Your task to perform on an android device: install app "LiveIn - Share Your Moment" Image 0: 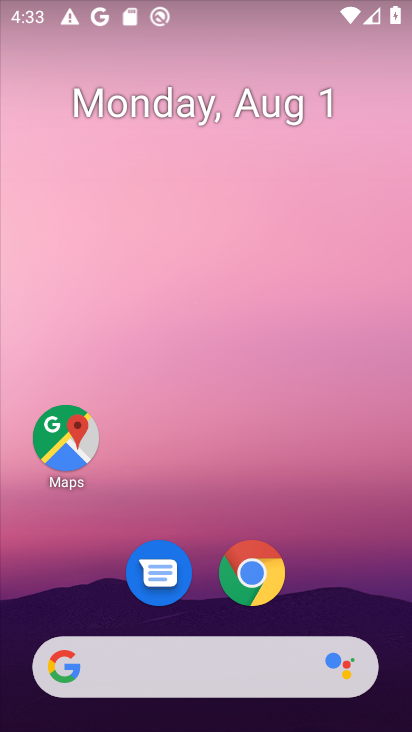
Step 0: drag from (242, 673) to (236, 89)
Your task to perform on an android device: install app "LiveIn - Share Your Moment" Image 1: 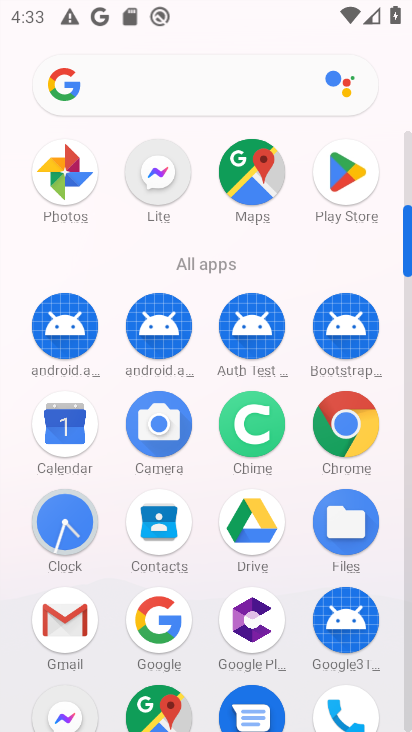
Step 1: click (358, 194)
Your task to perform on an android device: install app "LiveIn - Share Your Moment" Image 2: 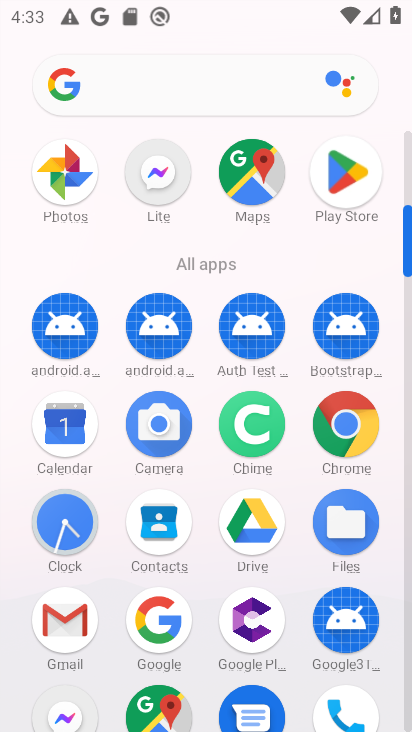
Step 2: click (364, 190)
Your task to perform on an android device: install app "LiveIn - Share Your Moment" Image 3: 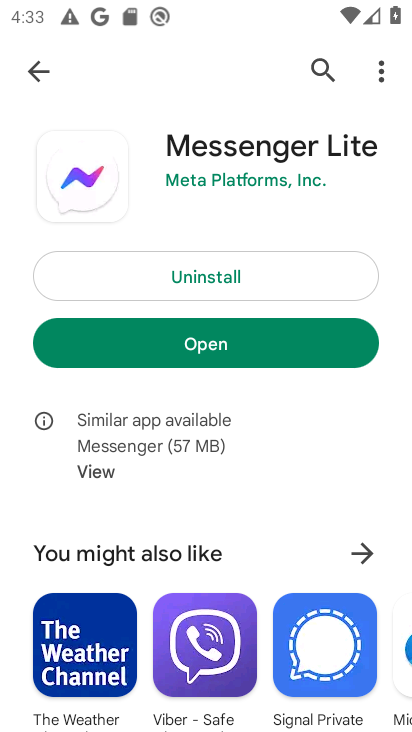
Step 3: click (30, 81)
Your task to perform on an android device: install app "LiveIn - Share Your Moment" Image 4: 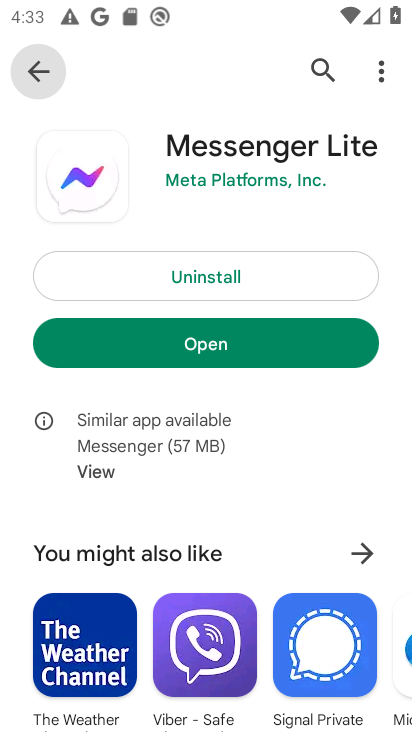
Step 4: click (30, 81)
Your task to perform on an android device: install app "LiveIn - Share Your Moment" Image 5: 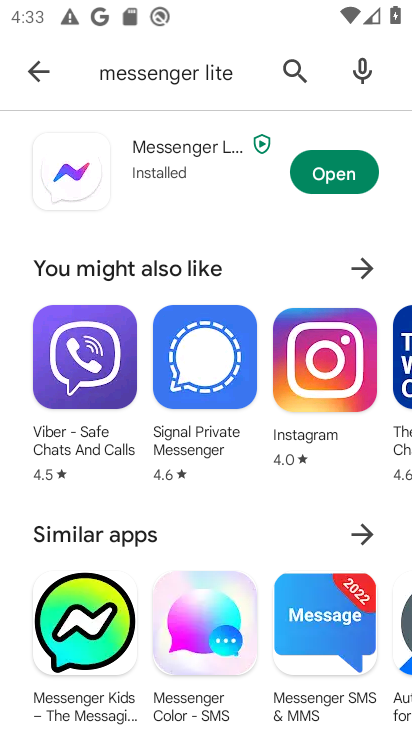
Step 5: click (30, 81)
Your task to perform on an android device: install app "LiveIn - Share Your Moment" Image 6: 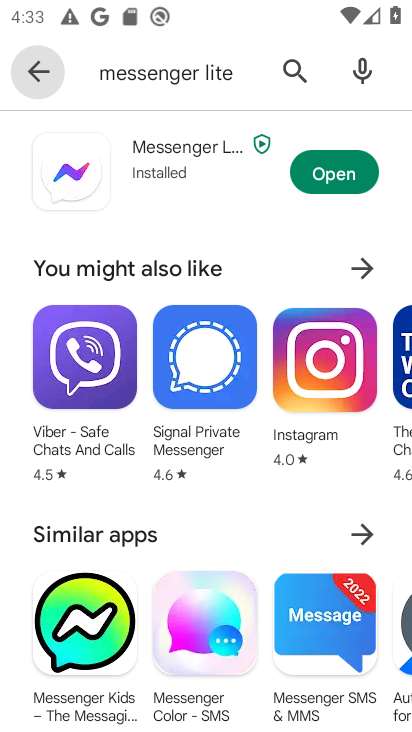
Step 6: click (31, 82)
Your task to perform on an android device: install app "LiveIn - Share Your Moment" Image 7: 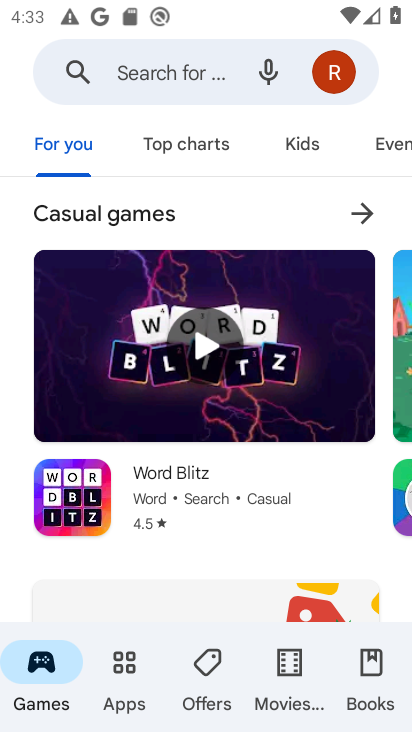
Step 7: click (138, 70)
Your task to perform on an android device: install app "LiveIn - Share Your Moment" Image 8: 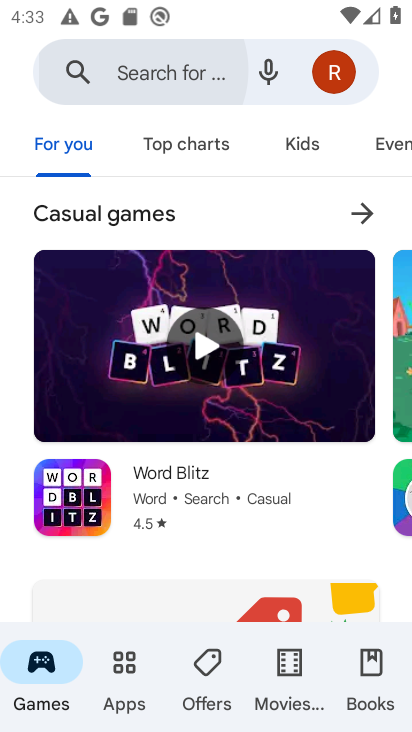
Step 8: click (136, 71)
Your task to perform on an android device: install app "LiveIn - Share Your Moment" Image 9: 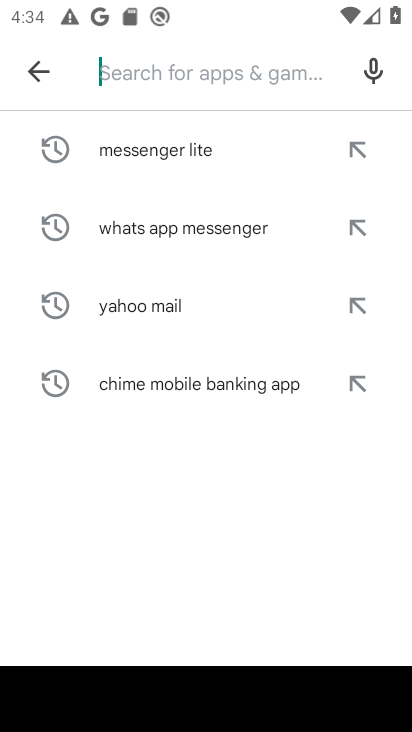
Step 9: type "livein"
Your task to perform on an android device: install app "LiveIn - Share Your Moment" Image 10: 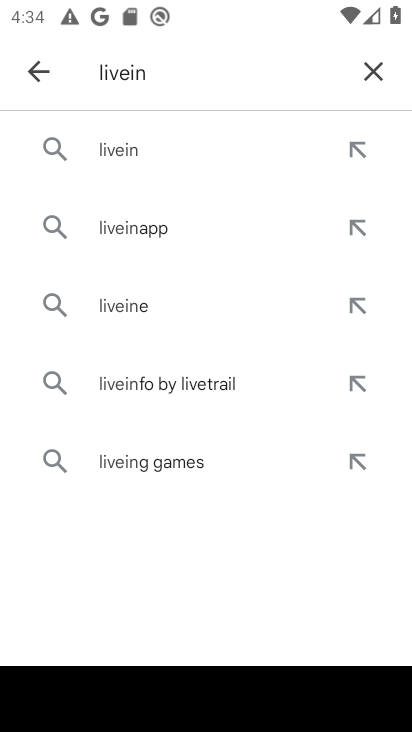
Step 10: click (102, 151)
Your task to perform on an android device: install app "LiveIn - Share Your Moment" Image 11: 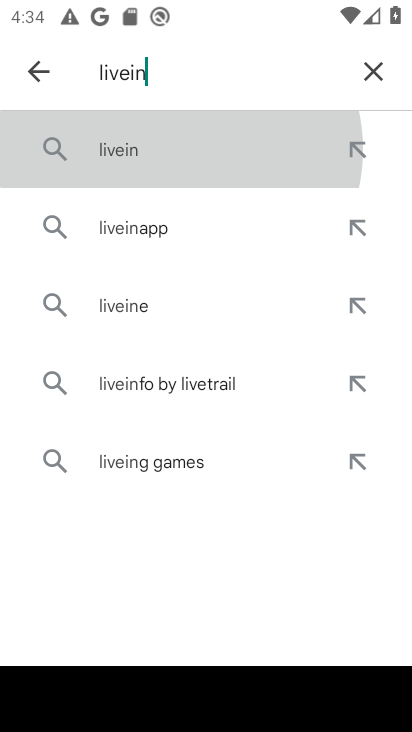
Step 11: click (102, 150)
Your task to perform on an android device: install app "LiveIn - Share Your Moment" Image 12: 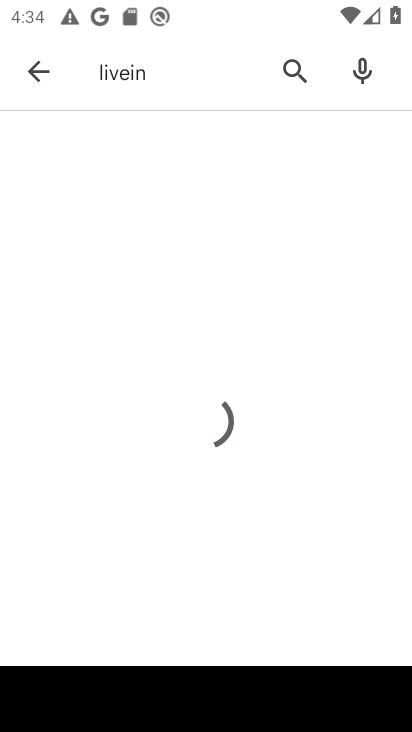
Step 12: click (101, 149)
Your task to perform on an android device: install app "LiveIn - Share Your Moment" Image 13: 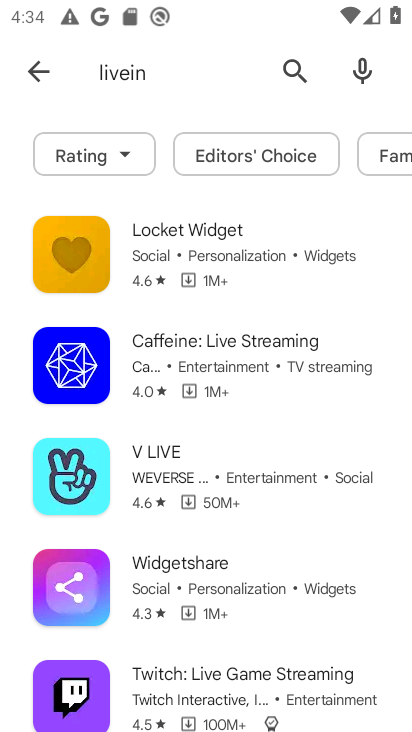
Step 13: task complete